Your task to perform on an android device: toggle notifications settings in the gmail app Image 0: 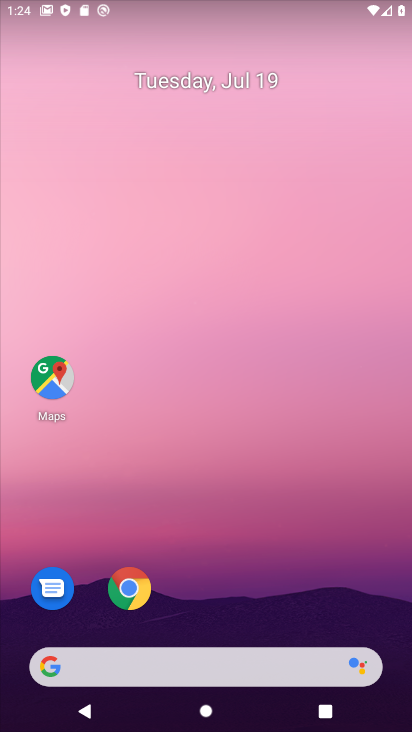
Step 0: drag from (326, 611) to (285, 235)
Your task to perform on an android device: toggle notifications settings in the gmail app Image 1: 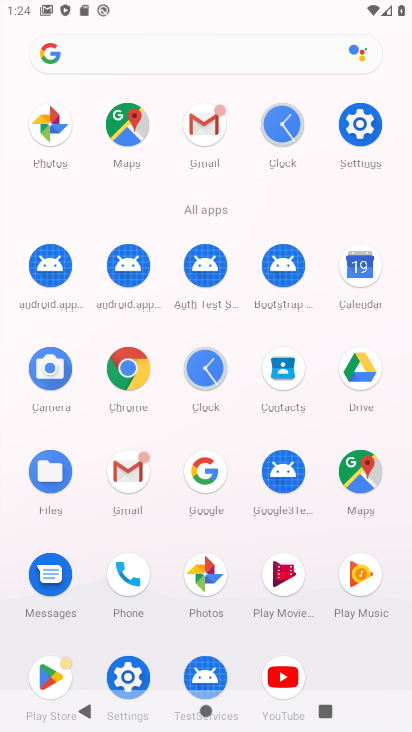
Step 1: click (203, 126)
Your task to perform on an android device: toggle notifications settings in the gmail app Image 2: 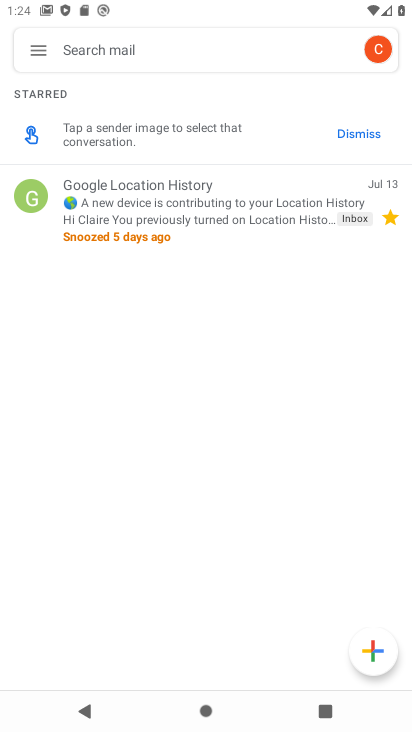
Step 2: click (39, 56)
Your task to perform on an android device: toggle notifications settings in the gmail app Image 3: 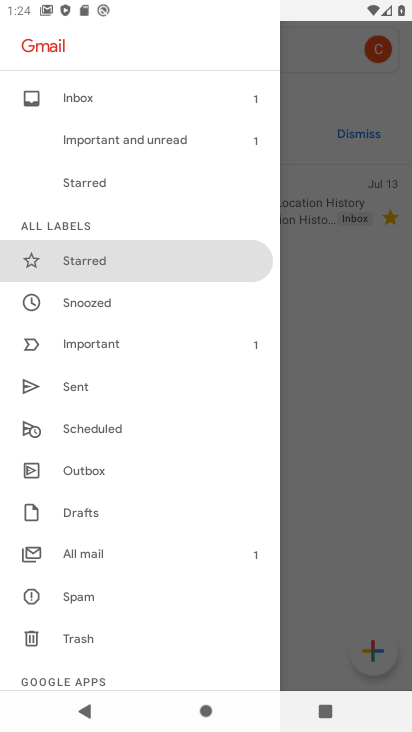
Step 3: drag from (106, 674) to (126, 266)
Your task to perform on an android device: toggle notifications settings in the gmail app Image 4: 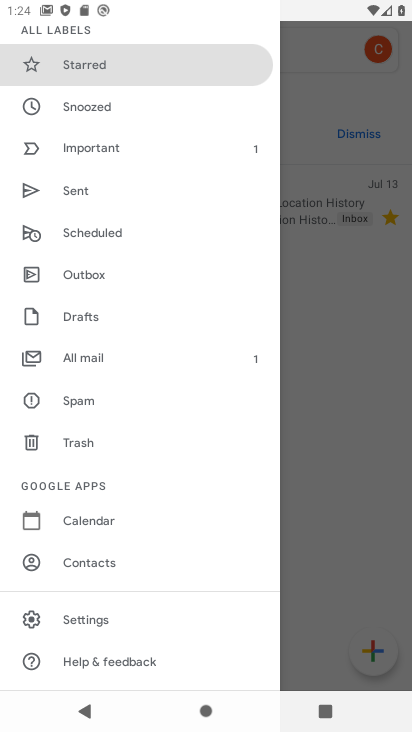
Step 4: click (91, 629)
Your task to perform on an android device: toggle notifications settings in the gmail app Image 5: 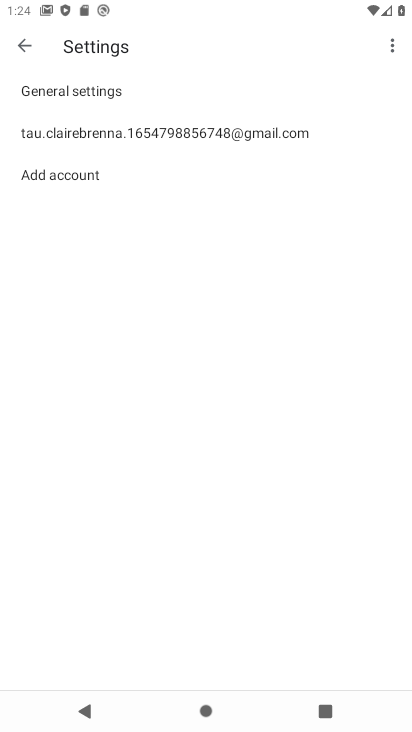
Step 5: click (225, 141)
Your task to perform on an android device: toggle notifications settings in the gmail app Image 6: 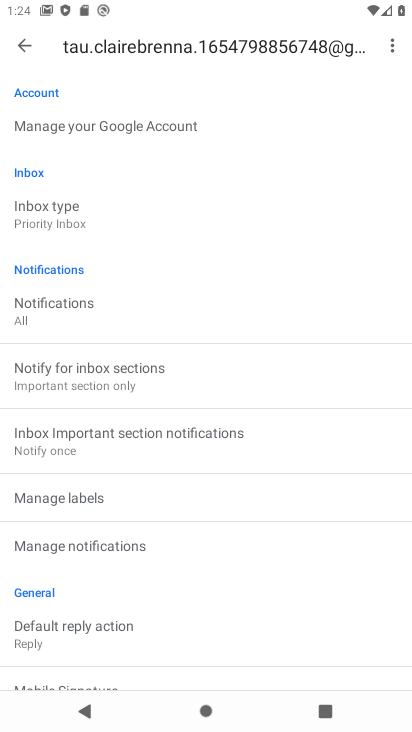
Step 6: click (154, 539)
Your task to perform on an android device: toggle notifications settings in the gmail app Image 7: 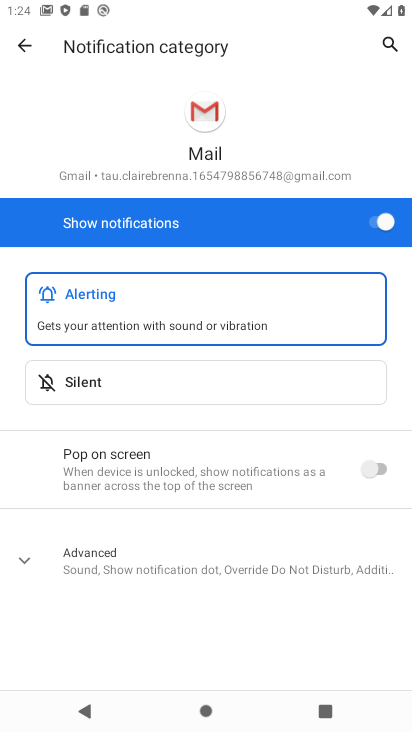
Step 7: click (247, 396)
Your task to perform on an android device: toggle notifications settings in the gmail app Image 8: 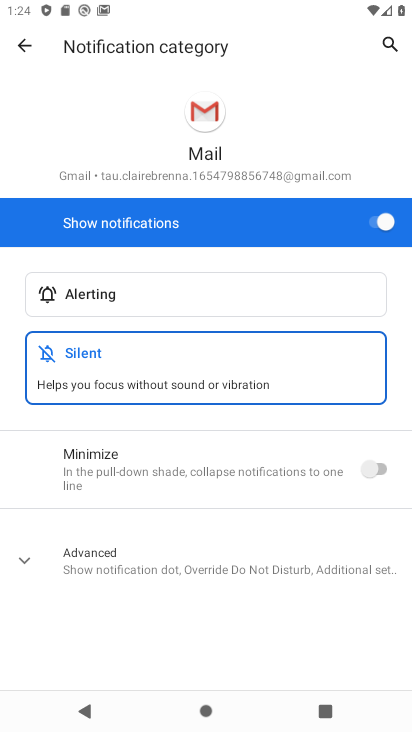
Step 8: click (360, 475)
Your task to perform on an android device: toggle notifications settings in the gmail app Image 9: 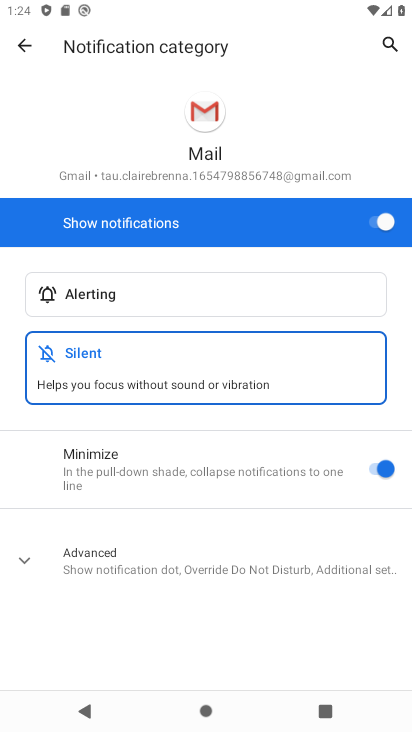
Step 9: task complete